Your task to perform on an android device: turn pop-ups off in chrome Image 0: 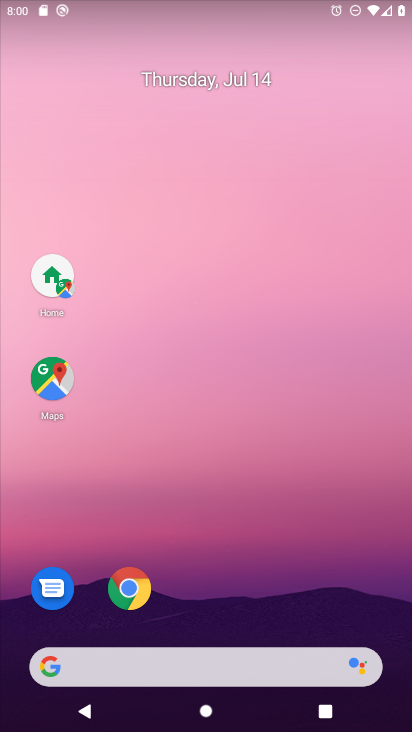
Step 0: click (152, 597)
Your task to perform on an android device: turn pop-ups off in chrome Image 1: 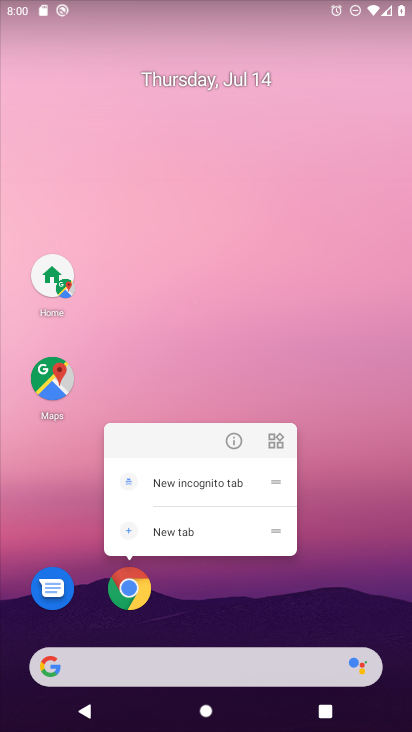
Step 1: click (121, 603)
Your task to perform on an android device: turn pop-ups off in chrome Image 2: 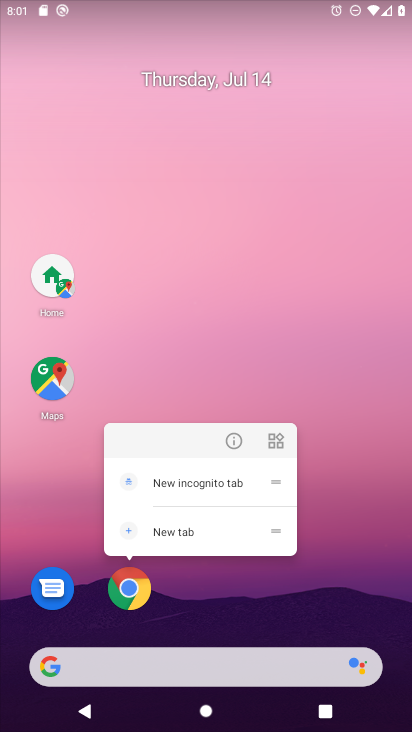
Step 2: click (135, 585)
Your task to perform on an android device: turn pop-ups off in chrome Image 3: 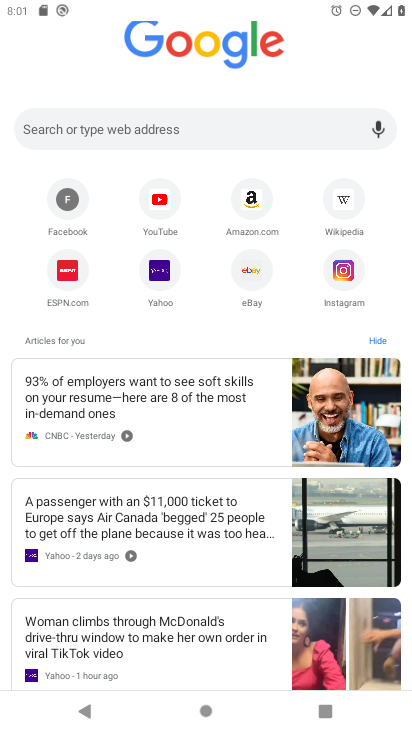
Step 3: click (262, 131)
Your task to perform on an android device: turn pop-ups off in chrome Image 4: 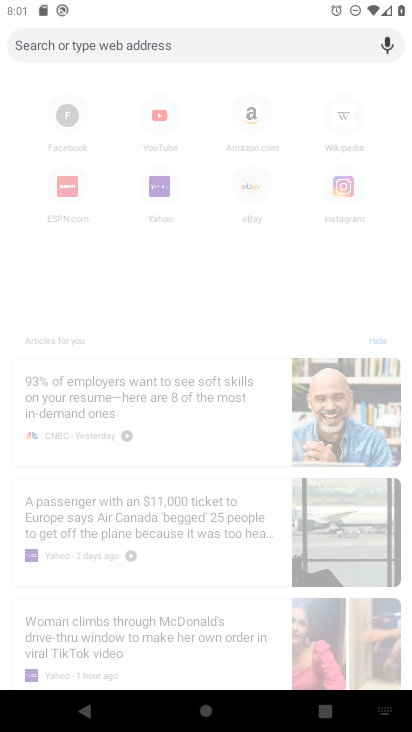
Step 4: click (259, 46)
Your task to perform on an android device: turn pop-ups off in chrome Image 5: 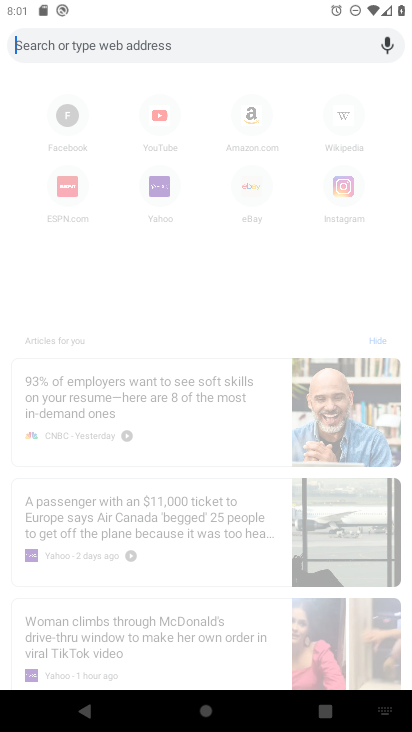
Step 5: task complete